Your task to perform on an android device: Go to privacy settings Image 0: 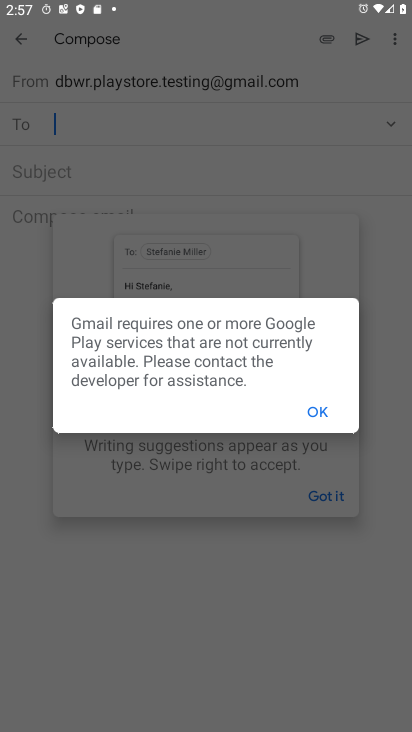
Step 0: press home button
Your task to perform on an android device: Go to privacy settings Image 1: 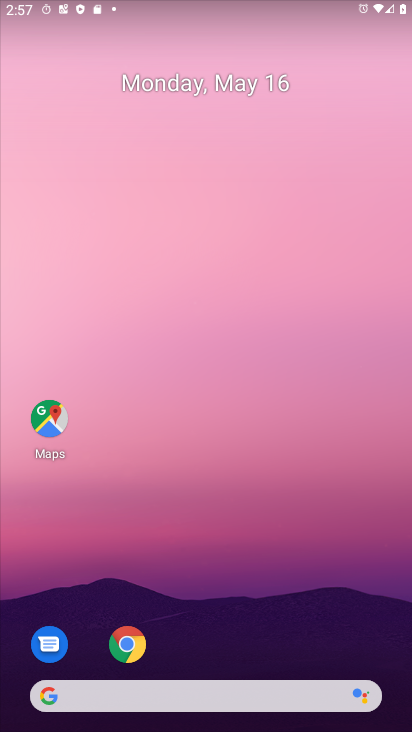
Step 1: drag from (195, 625) to (287, 252)
Your task to perform on an android device: Go to privacy settings Image 2: 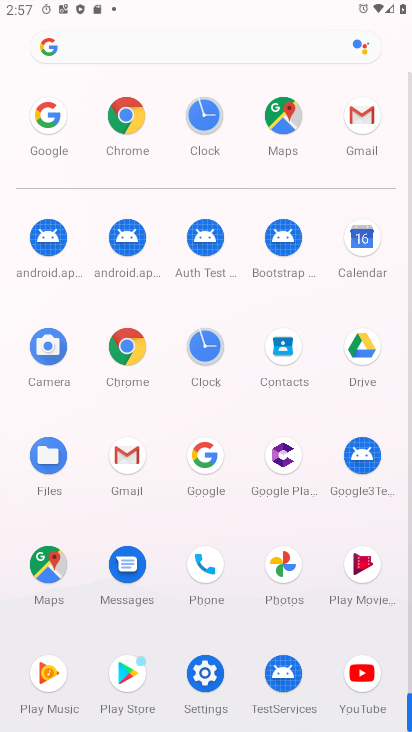
Step 2: click (205, 679)
Your task to perform on an android device: Go to privacy settings Image 3: 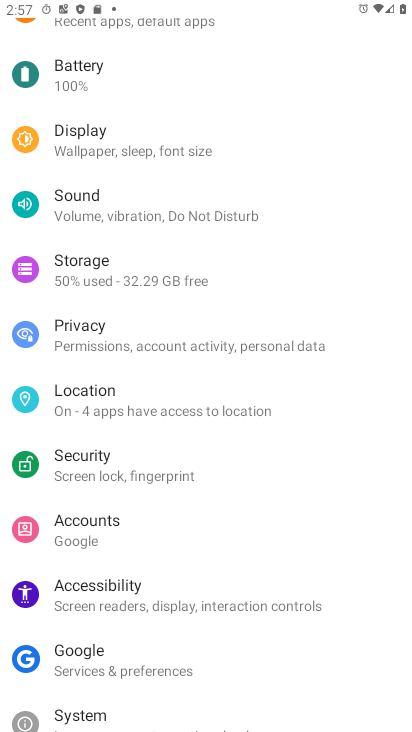
Step 3: click (151, 303)
Your task to perform on an android device: Go to privacy settings Image 4: 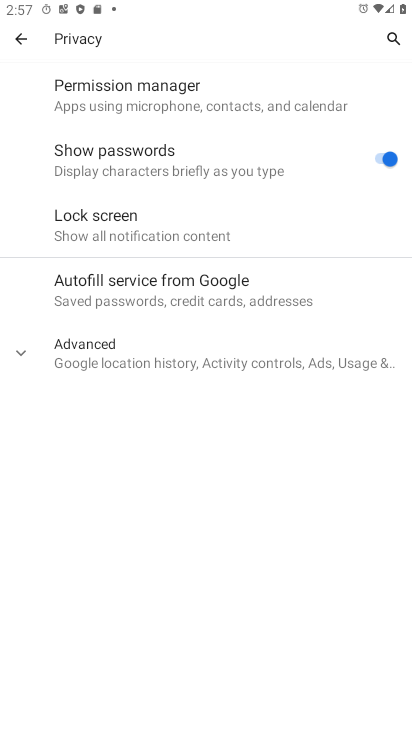
Step 4: task complete